Your task to perform on an android device: Open calendar and show me the third week of next month Image 0: 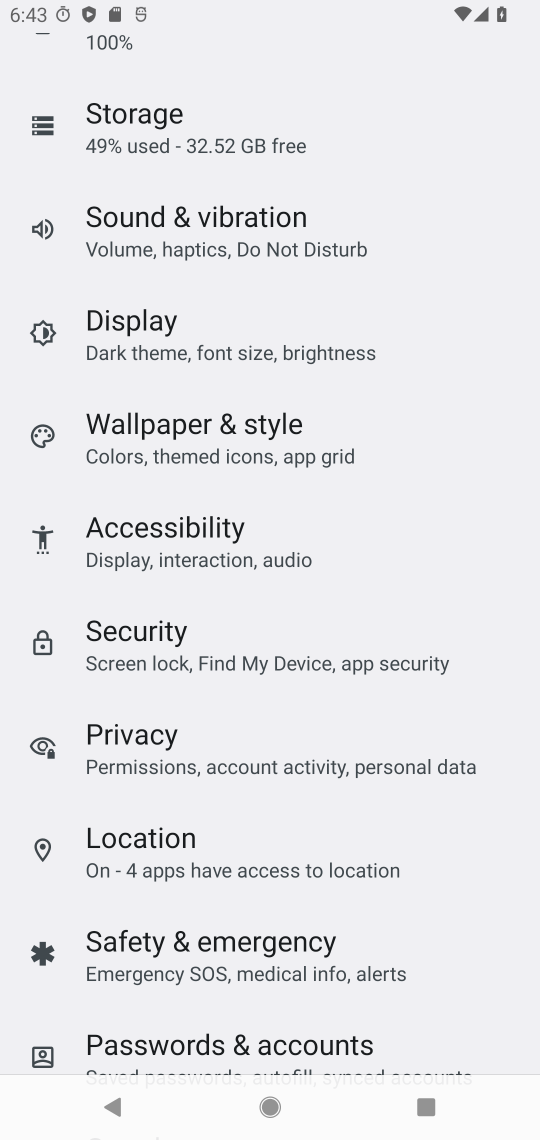
Step 0: press home button
Your task to perform on an android device: Open calendar and show me the third week of next month Image 1: 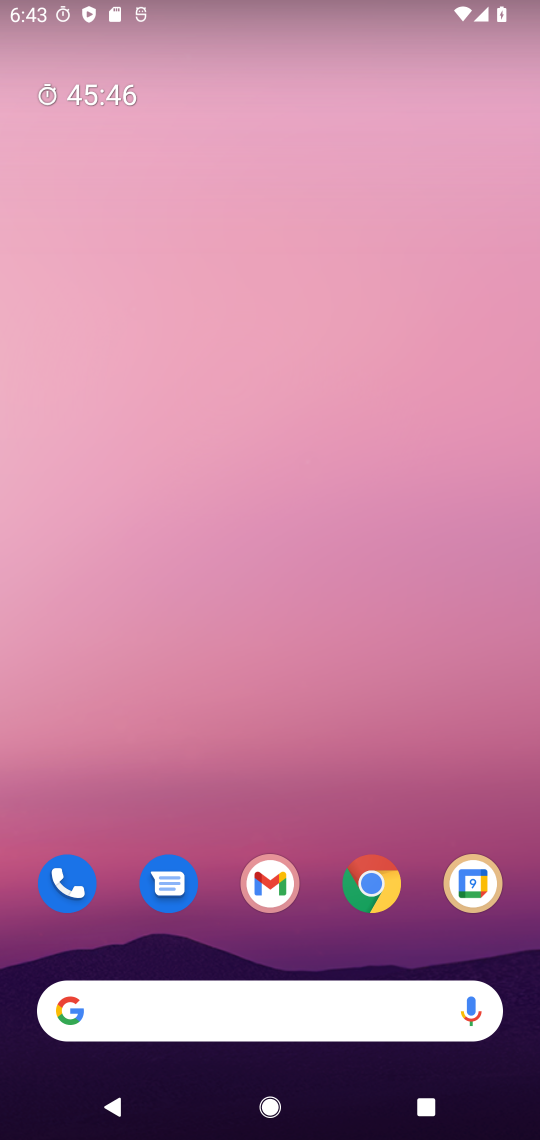
Step 1: drag from (276, 775) to (274, 241)
Your task to perform on an android device: Open calendar and show me the third week of next month Image 2: 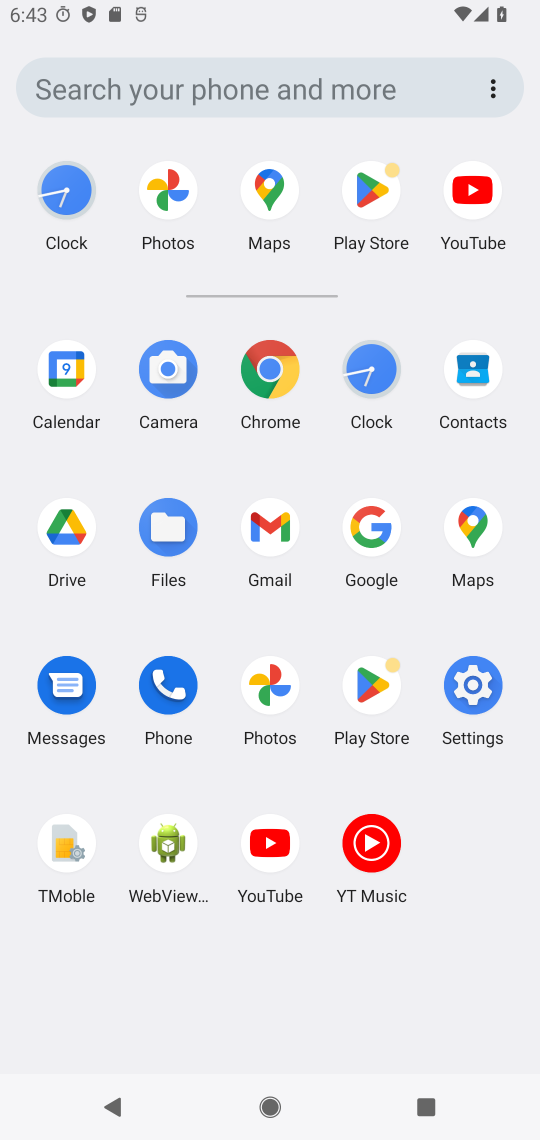
Step 2: click (78, 384)
Your task to perform on an android device: Open calendar and show me the third week of next month Image 3: 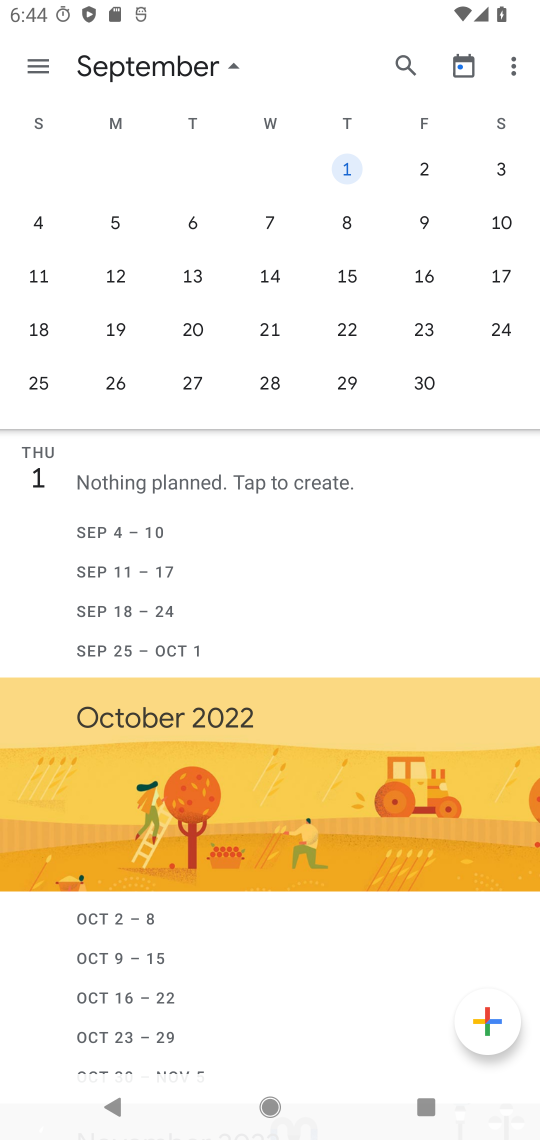
Step 3: click (24, 287)
Your task to perform on an android device: Open calendar and show me the third week of next month Image 4: 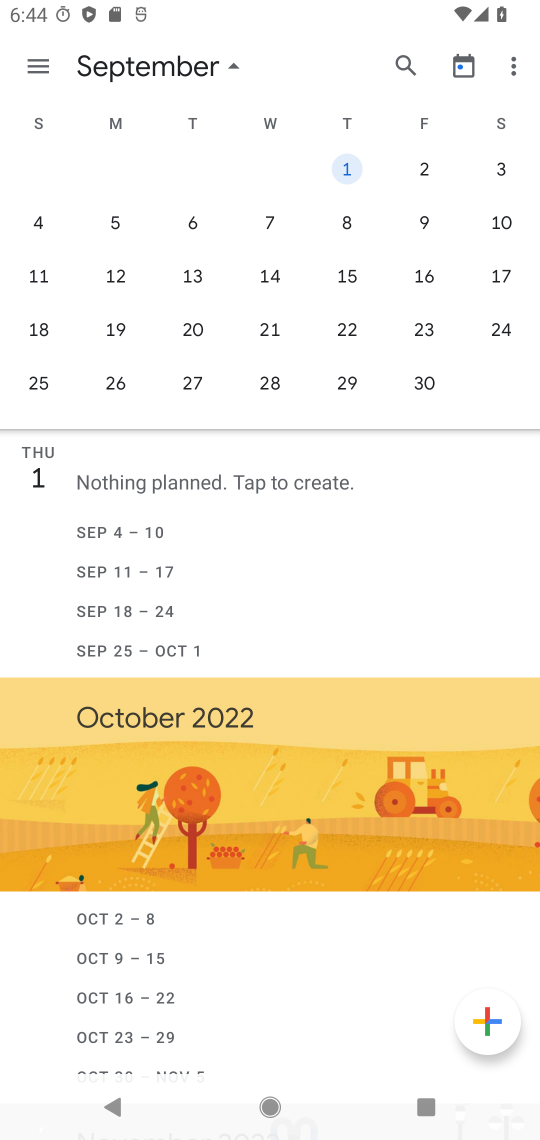
Step 4: click (41, 272)
Your task to perform on an android device: Open calendar and show me the third week of next month Image 5: 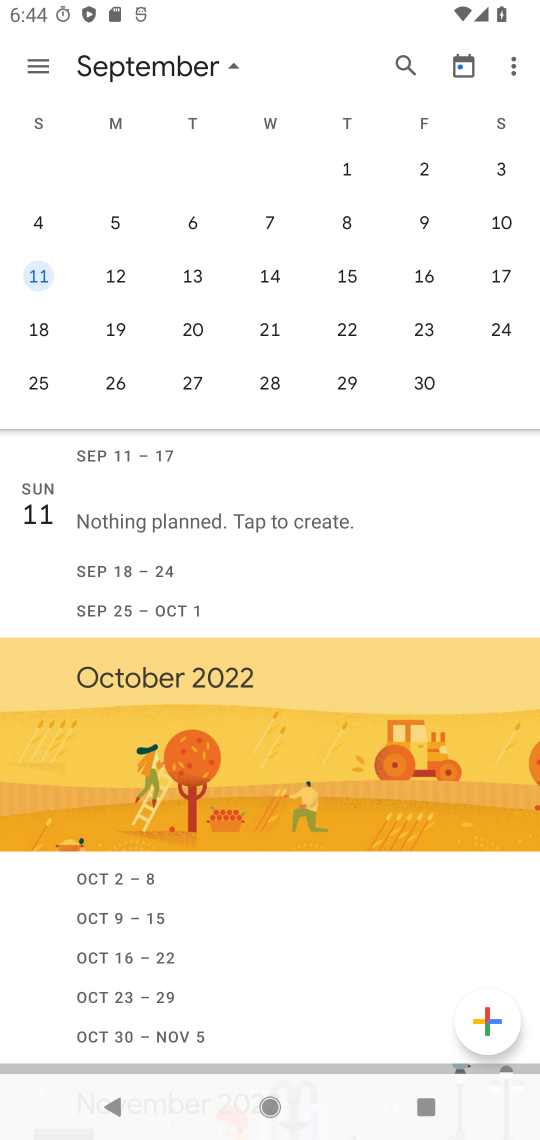
Step 5: task complete